Your task to perform on an android device: Open calendar and show me the third week of next month Image 0: 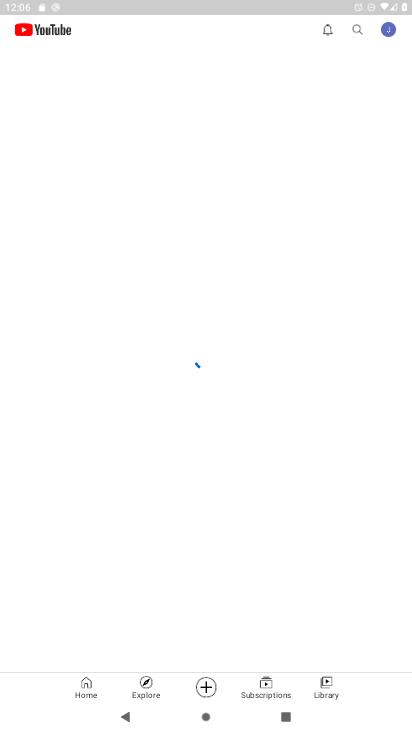
Step 0: press home button
Your task to perform on an android device: Open calendar and show me the third week of next month Image 1: 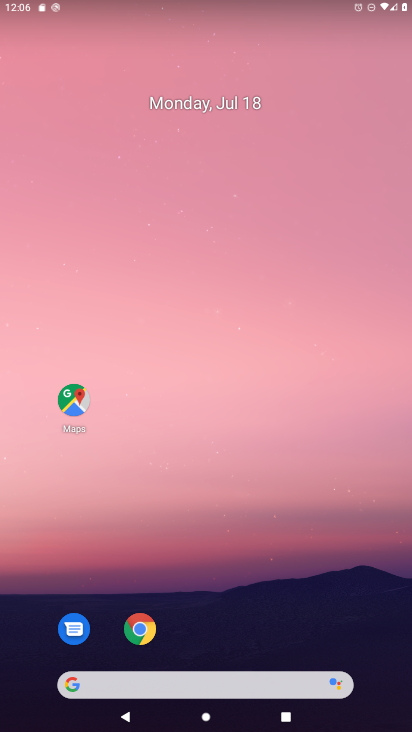
Step 1: drag from (179, 678) to (302, 163)
Your task to perform on an android device: Open calendar and show me the third week of next month Image 2: 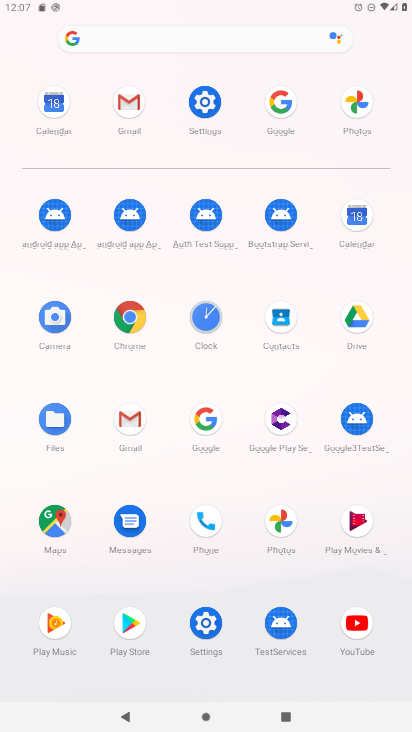
Step 2: click (357, 219)
Your task to perform on an android device: Open calendar and show me the third week of next month Image 3: 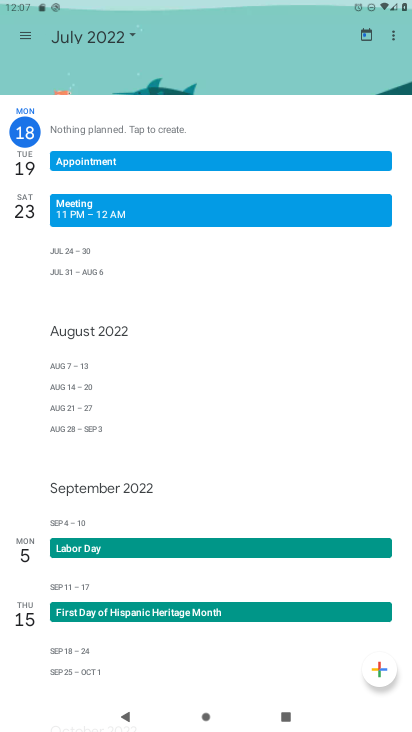
Step 3: click (366, 36)
Your task to perform on an android device: Open calendar and show me the third week of next month Image 4: 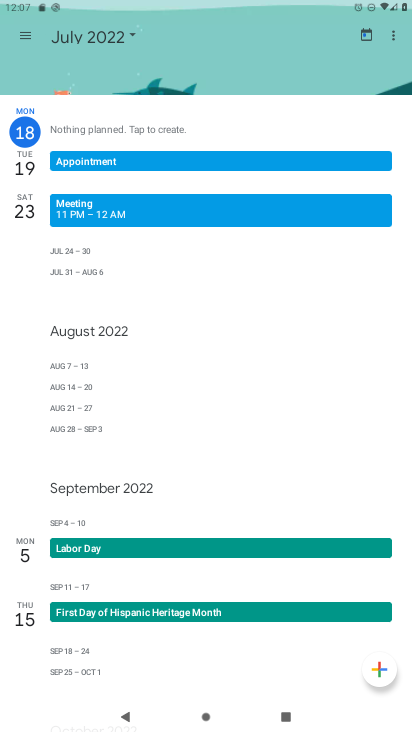
Step 4: click (130, 36)
Your task to perform on an android device: Open calendar and show me the third week of next month Image 5: 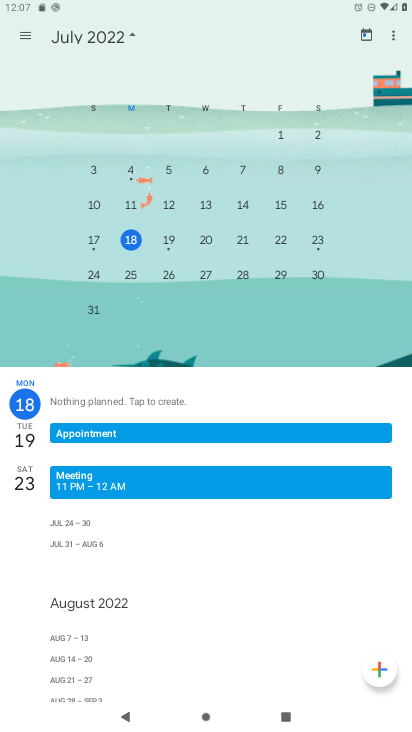
Step 5: drag from (359, 230) to (2, 286)
Your task to perform on an android device: Open calendar and show me the third week of next month Image 6: 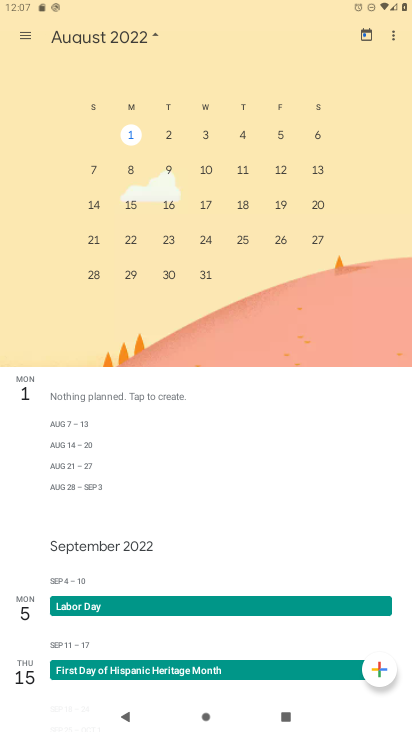
Step 6: click (135, 203)
Your task to perform on an android device: Open calendar and show me the third week of next month Image 7: 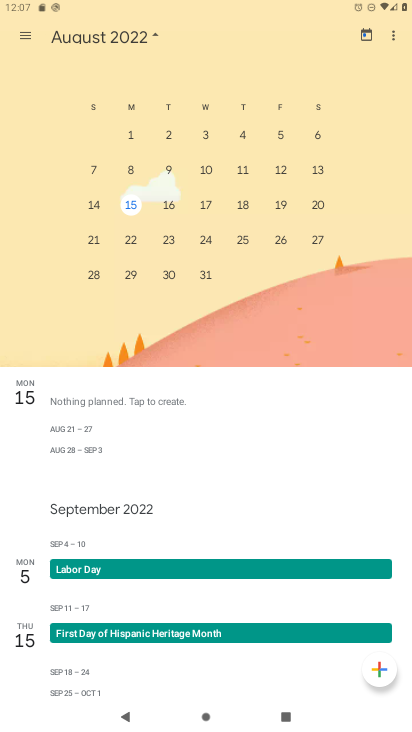
Step 7: click (22, 33)
Your task to perform on an android device: Open calendar and show me the third week of next month Image 8: 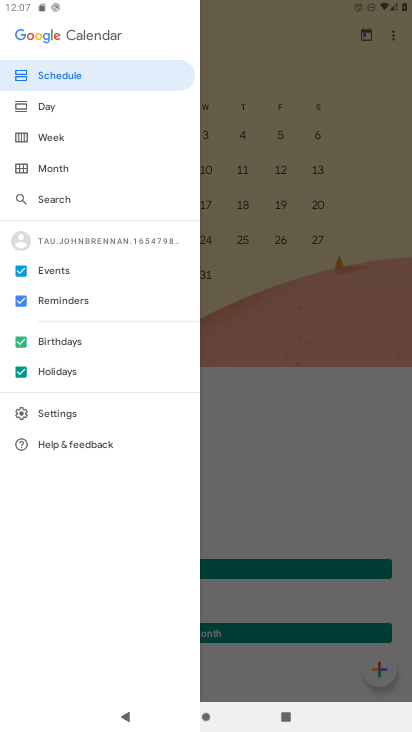
Step 8: click (35, 137)
Your task to perform on an android device: Open calendar and show me the third week of next month Image 9: 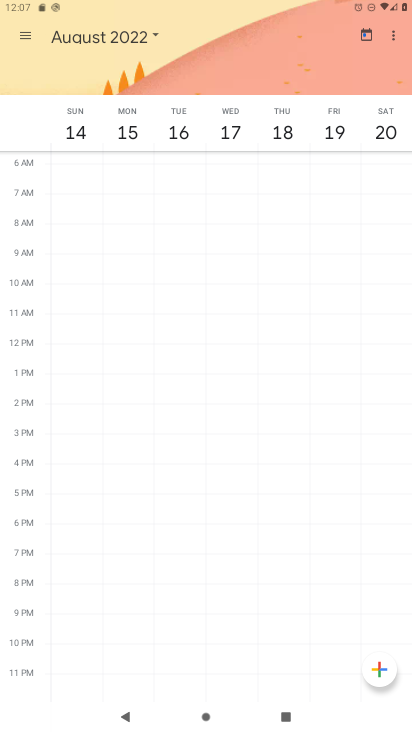
Step 9: task complete